Your task to perform on an android device: Go to privacy settings Image 0: 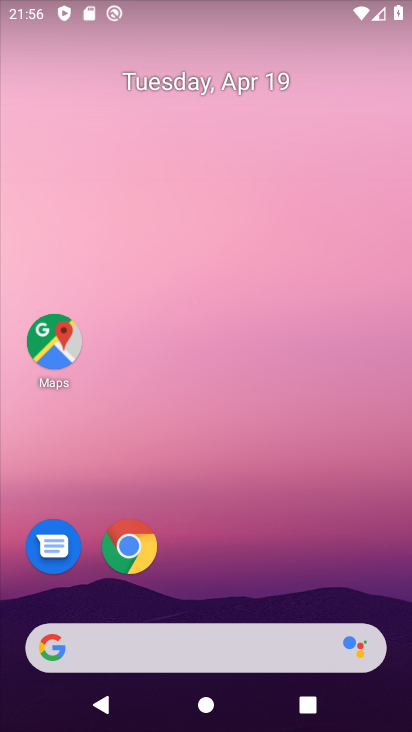
Step 0: drag from (233, 623) to (225, 3)
Your task to perform on an android device: Go to privacy settings Image 1: 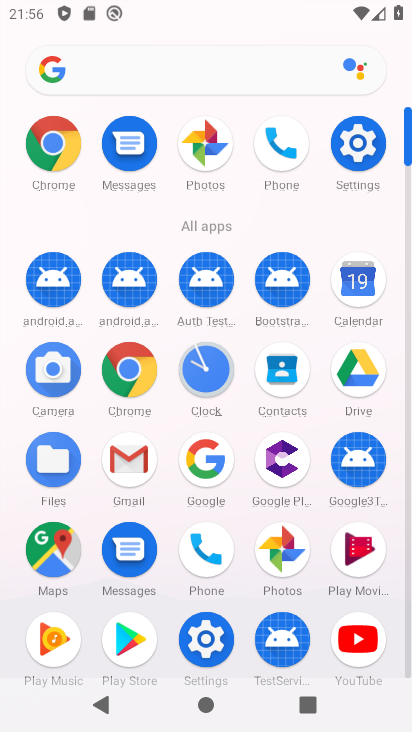
Step 1: click (354, 140)
Your task to perform on an android device: Go to privacy settings Image 2: 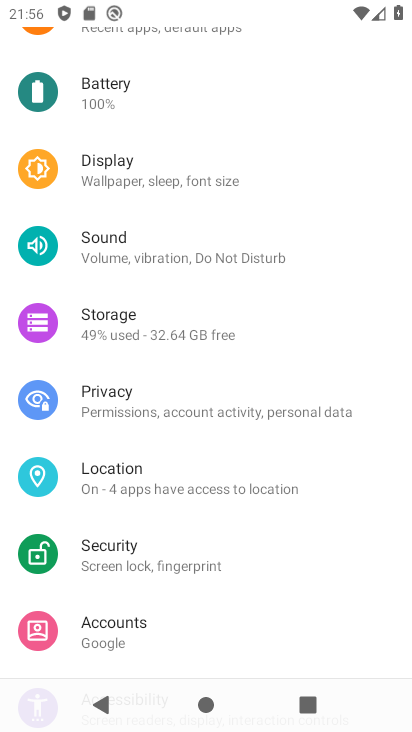
Step 2: click (148, 409)
Your task to perform on an android device: Go to privacy settings Image 3: 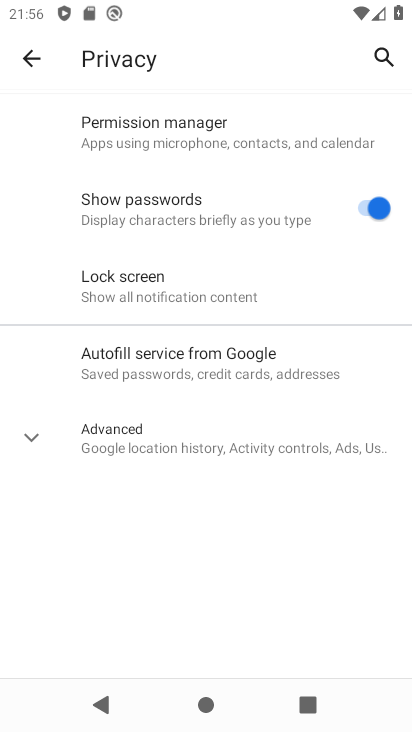
Step 3: task complete